Your task to perform on an android device: Toggle the flashlight Image 0: 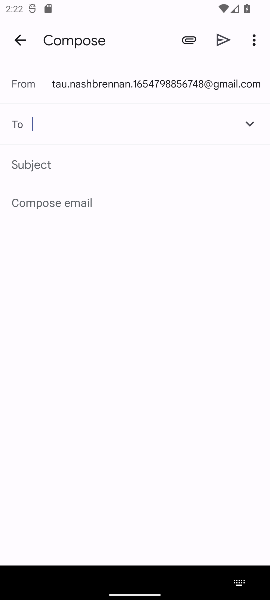
Step 0: task complete